Your task to perform on an android device: Show me popular games on the Play Store Image 0: 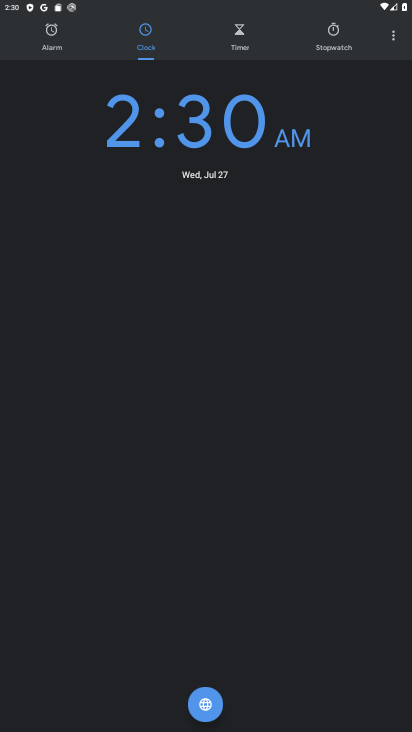
Step 0: press home button
Your task to perform on an android device: Show me popular games on the Play Store Image 1: 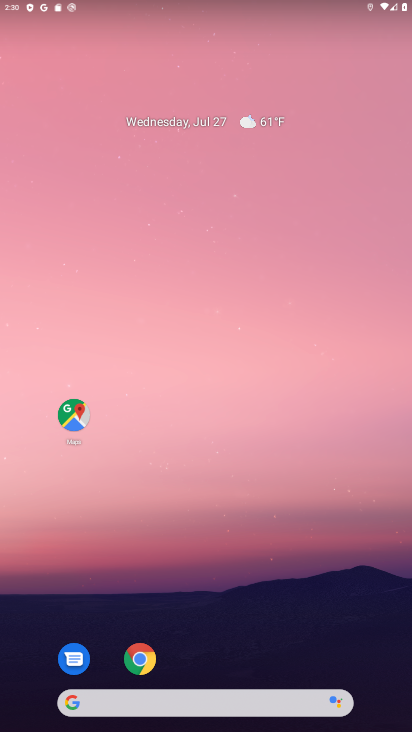
Step 1: drag from (197, 683) to (196, 73)
Your task to perform on an android device: Show me popular games on the Play Store Image 2: 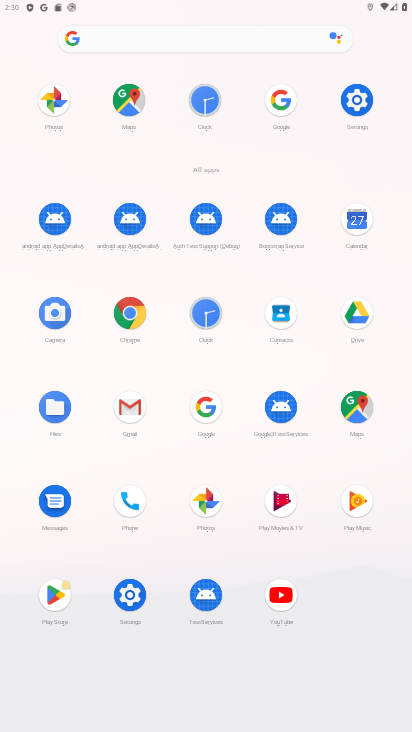
Step 2: click (42, 590)
Your task to perform on an android device: Show me popular games on the Play Store Image 3: 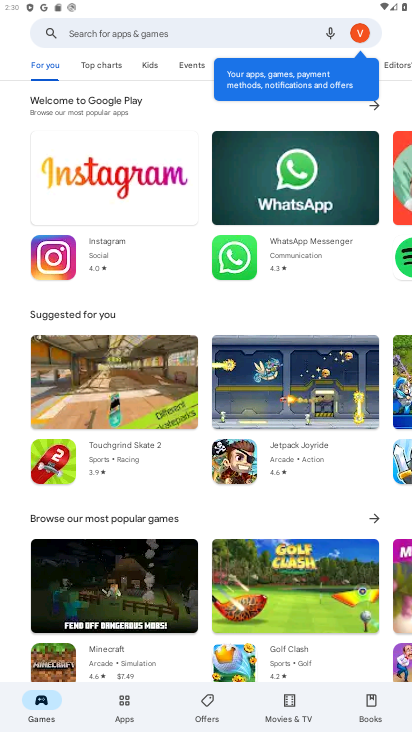
Step 3: type "popular games "
Your task to perform on an android device: Show me popular games on the Play Store Image 4: 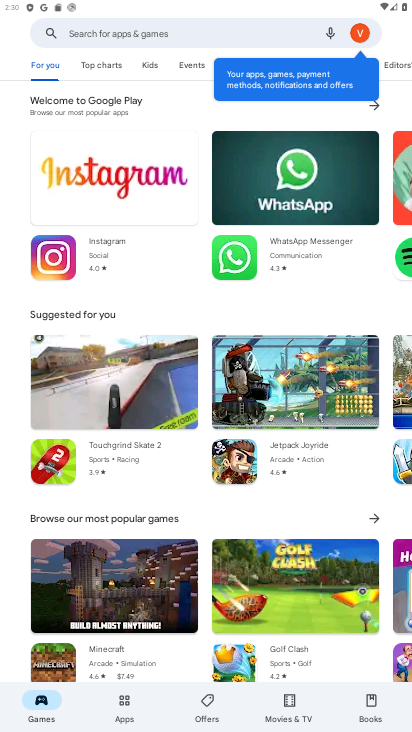
Step 4: click (129, 31)
Your task to perform on an android device: Show me popular games on the Play Store Image 5: 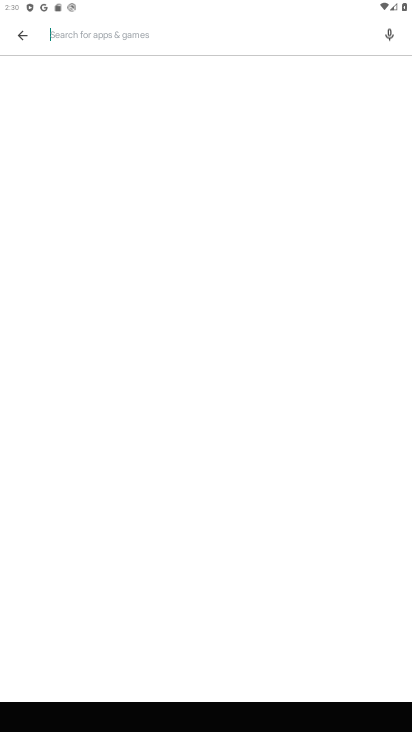
Step 5: click (129, 31)
Your task to perform on an android device: Show me popular games on the Play Store Image 6: 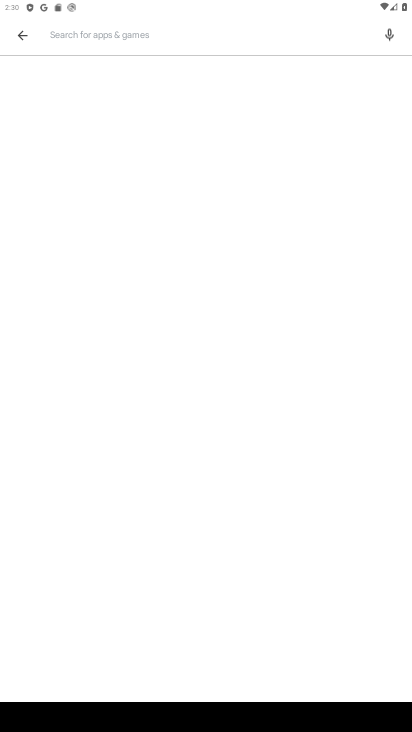
Step 6: type "popular games "
Your task to perform on an android device: Show me popular games on the Play Store Image 7: 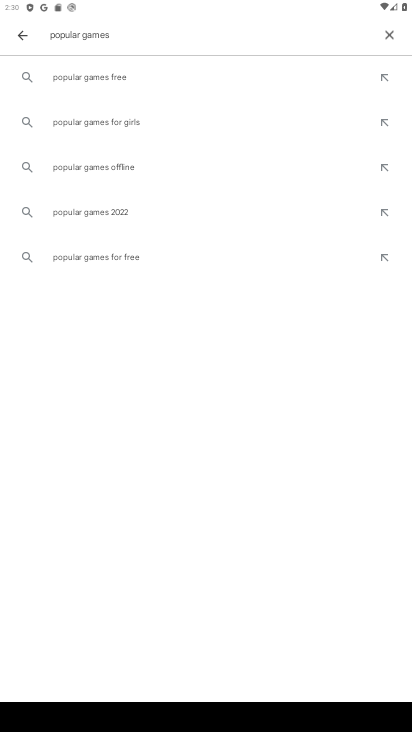
Step 7: click (85, 74)
Your task to perform on an android device: Show me popular games on the Play Store Image 8: 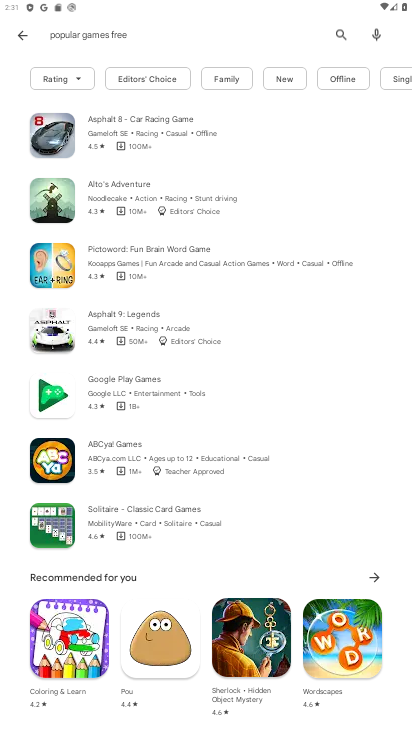
Step 8: task complete